Your task to perform on an android device: check the backup settings in the google photos Image 0: 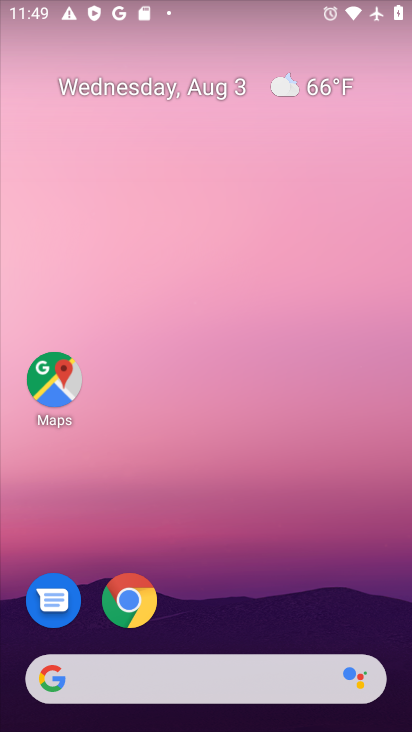
Step 0: drag from (271, 604) to (73, 61)
Your task to perform on an android device: check the backup settings in the google photos Image 1: 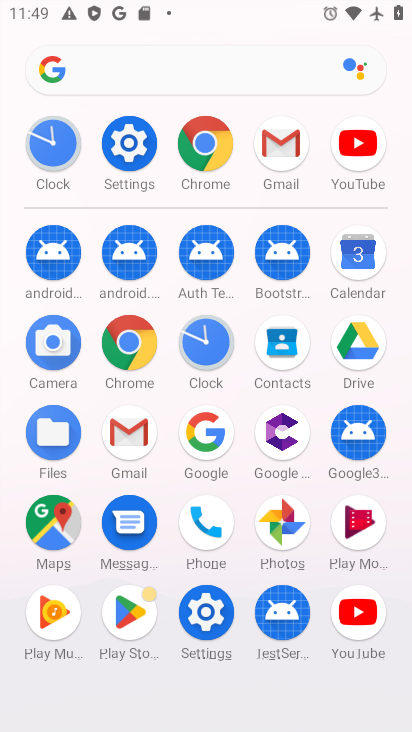
Step 1: click (290, 525)
Your task to perform on an android device: check the backup settings in the google photos Image 2: 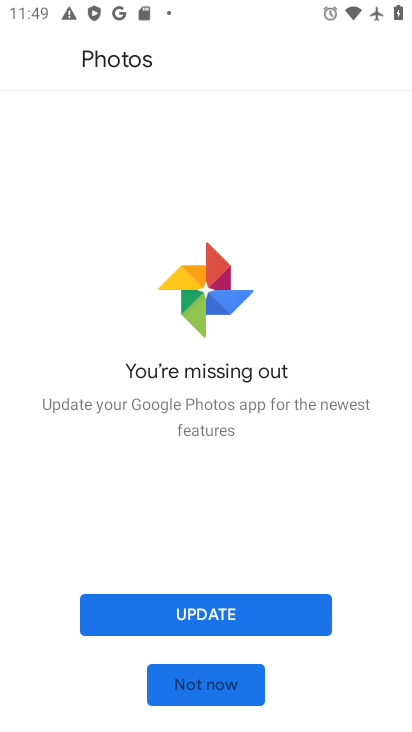
Step 2: click (211, 690)
Your task to perform on an android device: check the backup settings in the google photos Image 3: 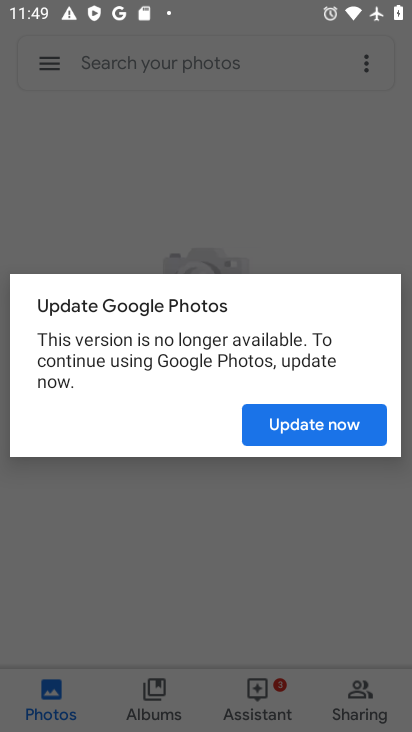
Step 3: click (199, 163)
Your task to perform on an android device: check the backup settings in the google photos Image 4: 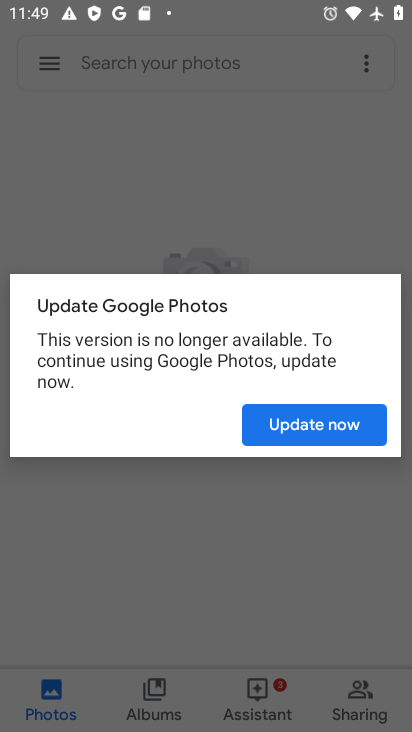
Step 4: click (58, 61)
Your task to perform on an android device: check the backup settings in the google photos Image 5: 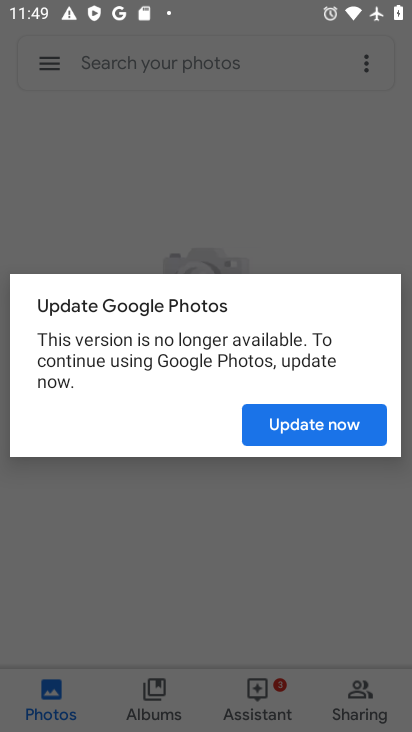
Step 5: click (300, 404)
Your task to perform on an android device: check the backup settings in the google photos Image 6: 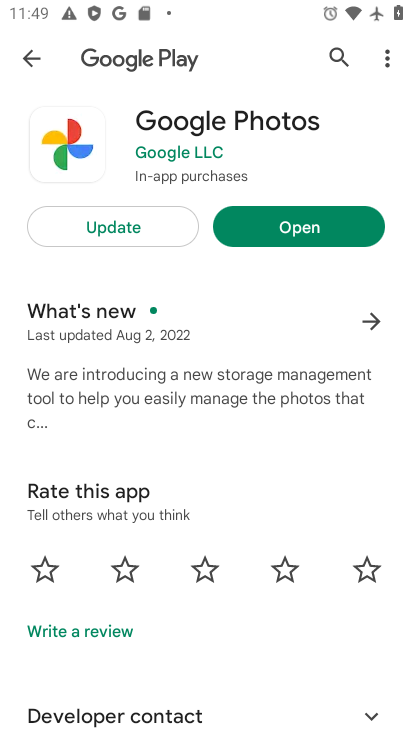
Step 6: click (311, 215)
Your task to perform on an android device: check the backup settings in the google photos Image 7: 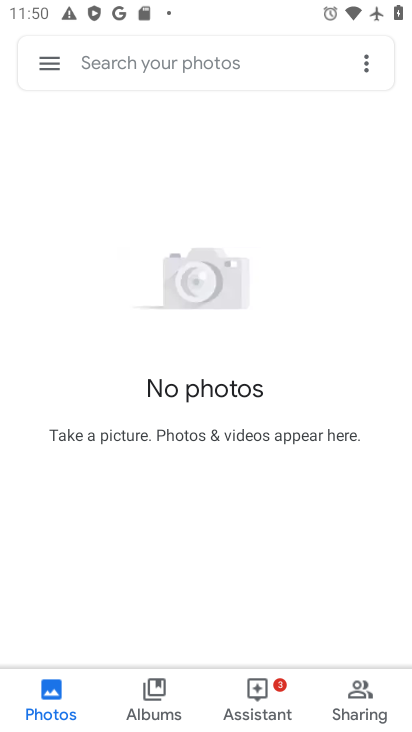
Step 7: click (41, 45)
Your task to perform on an android device: check the backup settings in the google photos Image 8: 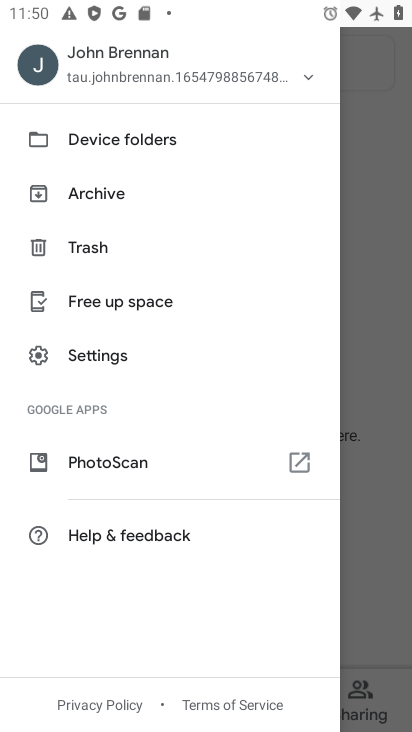
Step 8: click (100, 357)
Your task to perform on an android device: check the backup settings in the google photos Image 9: 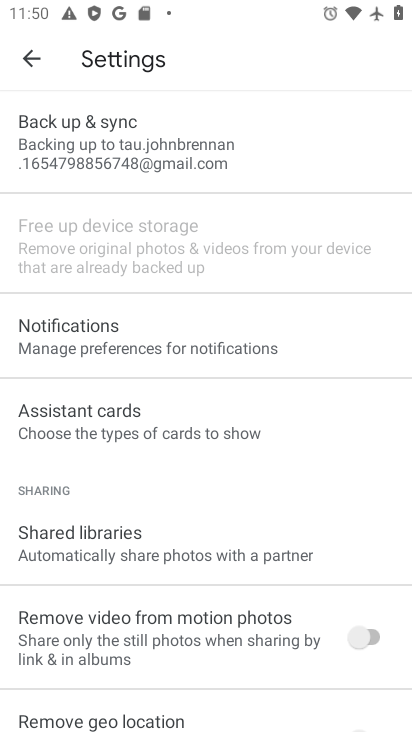
Step 9: click (71, 167)
Your task to perform on an android device: check the backup settings in the google photos Image 10: 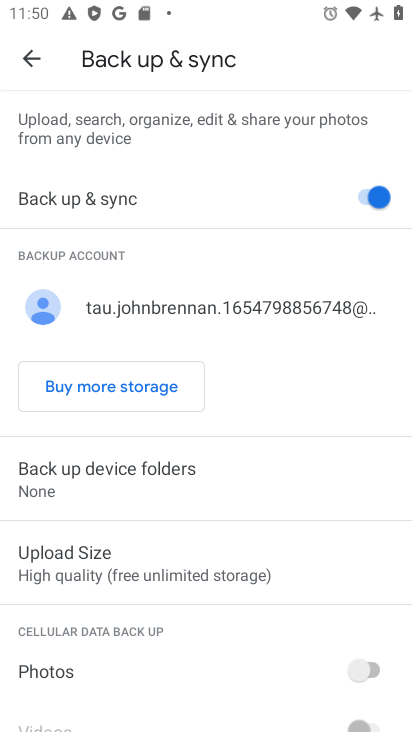
Step 10: task complete